Your task to perform on an android device: find photos in the google photos app Image 0: 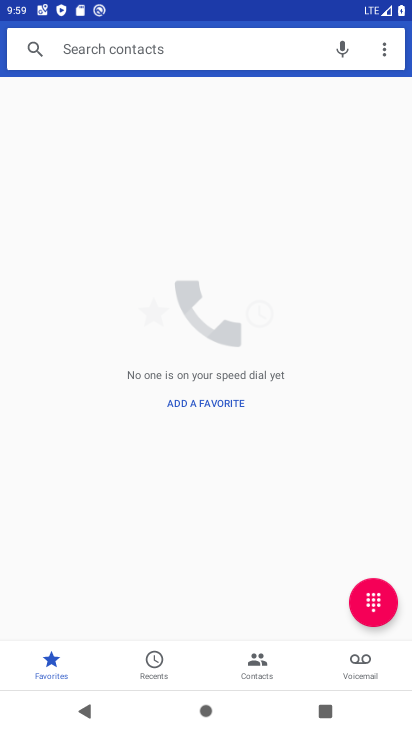
Step 0: press home button
Your task to perform on an android device: find photos in the google photos app Image 1: 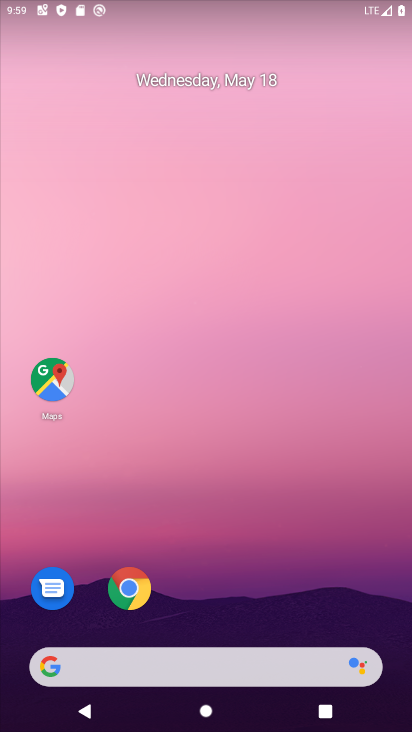
Step 1: drag from (336, 632) to (312, 10)
Your task to perform on an android device: find photos in the google photos app Image 2: 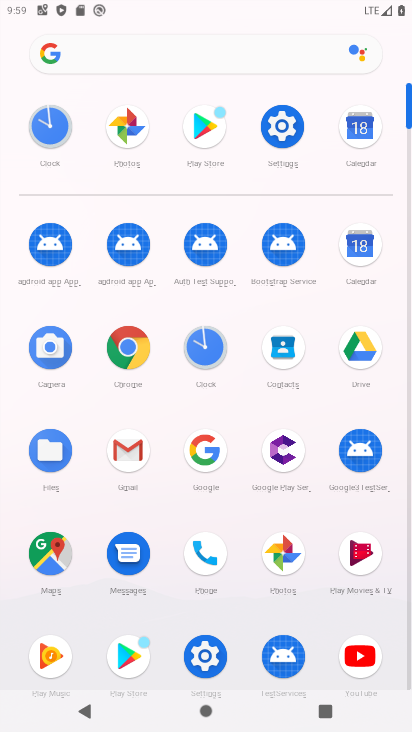
Step 2: click (130, 139)
Your task to perform on an android device: find photos in the google photos app Image 3: 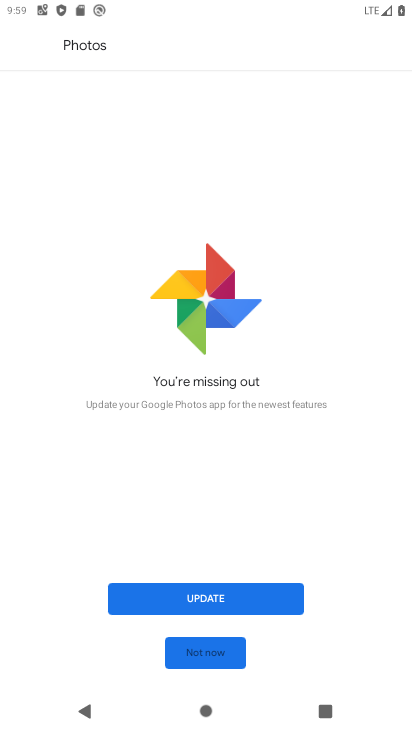
Step 3: click (218, 669)
Your task to perform on an android device: find photos in the google photos app Image 4: 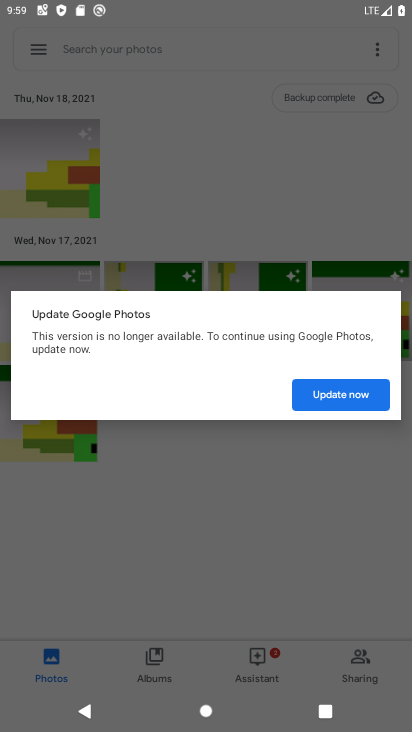
Step 4: click (320, 399)
Your task to perform on an android device: find photos in the google photos app Image 5: 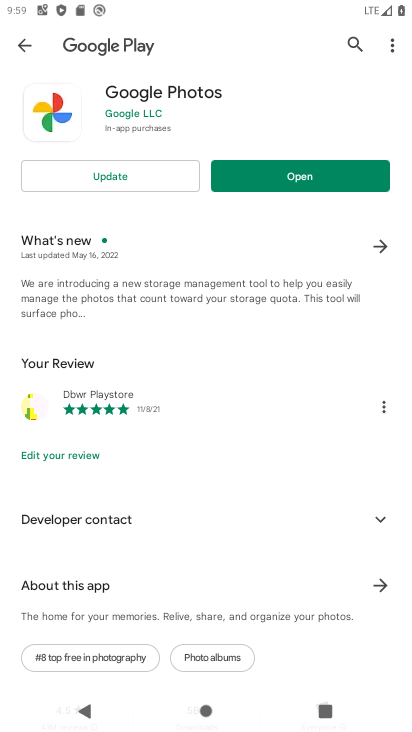
Step 5: click (280, 171)
Your task to perform on an android device: find photos in the google photos app Image 6: 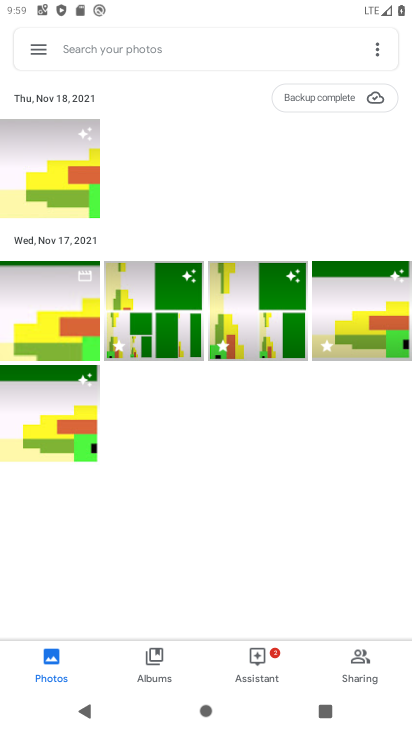
Step 6: click (41, 672)
Your task to perform on an android device: find photos in the google photos app Image 7: 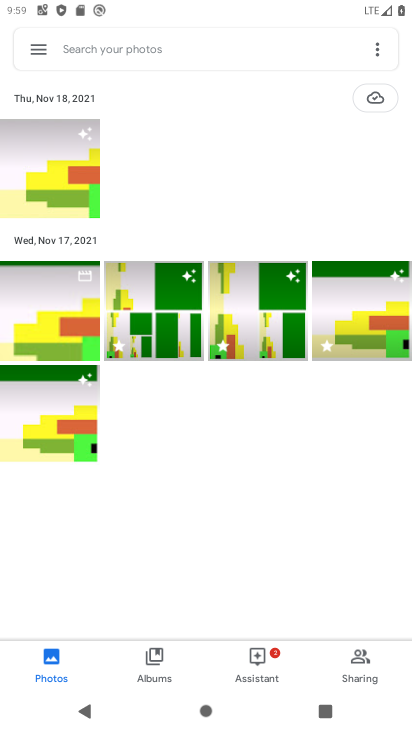
Step 7: task complete